Your task to perform on an android device: change the clock display to analog Image 0: 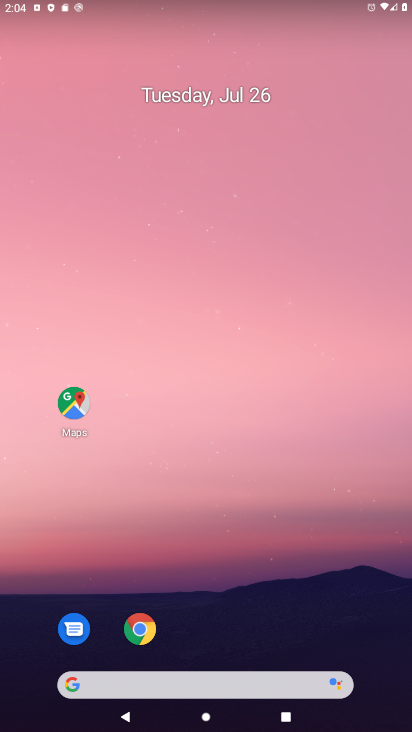
Step 0: drag from (388, 669) to (318, 212)
Your task to perform on an android device: change the clock display to analog Image 1: 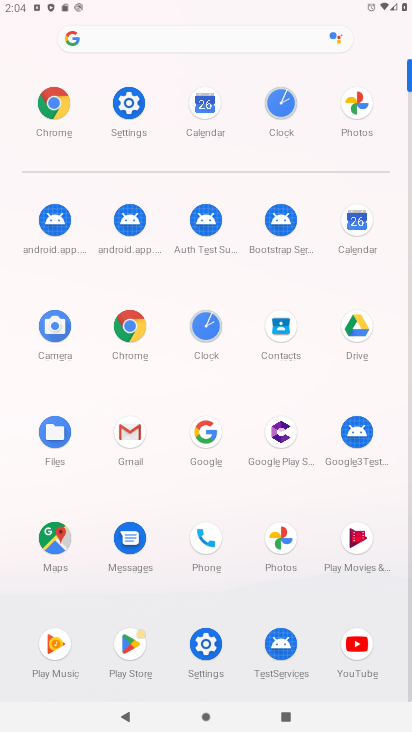
Step 1: click (208, 328)
Your task to perform on an android device: change the clock display to analog Image 2: 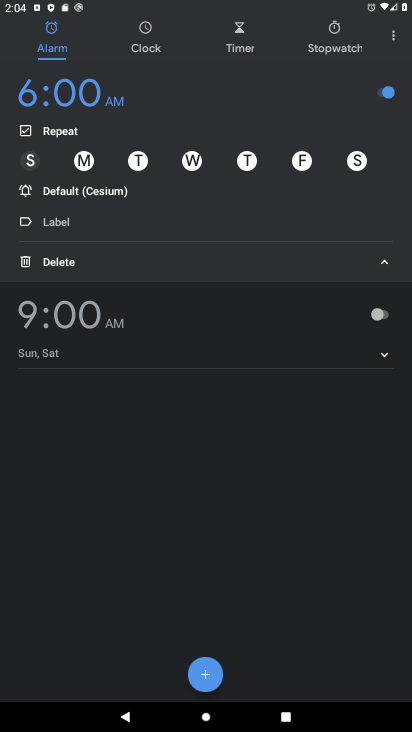
Step 2: click (393, 43)
Your task to perform on an android device: change the clock display to analog Image 3: 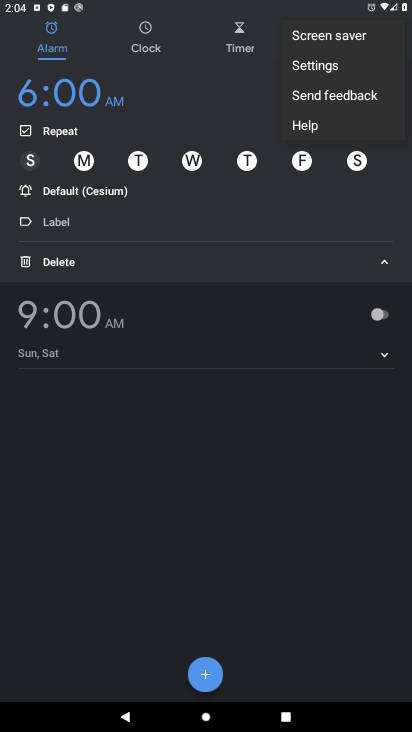
Step 3: click (319, 67)
Your task to perform on an android device: change the clock display to analog Image 4: 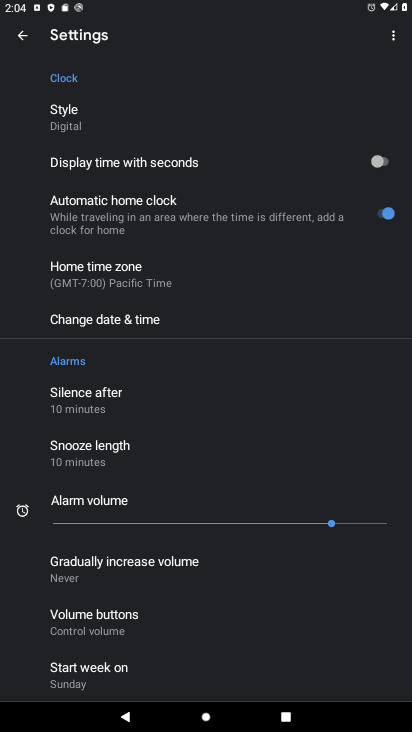
Step 4: click (70, 114)
Your task to perform on an android device: change the clock display to analog Image 5: 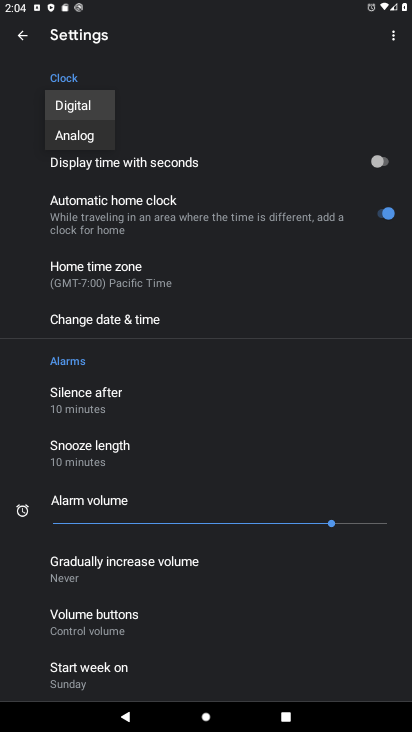
Step 5: click (84, 137)
Your task to perform on an android device: change the clock display to analog Image 6: 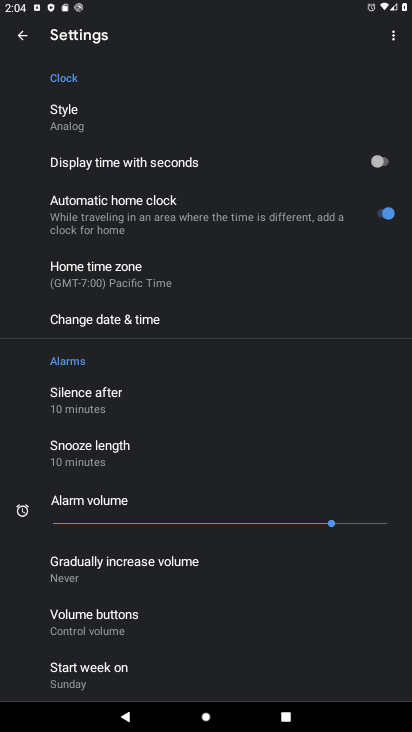
Step 6: task complete